Your task to perform on an android device: Open the calendar app, open the side menu, and click the "Day" option Image 0: 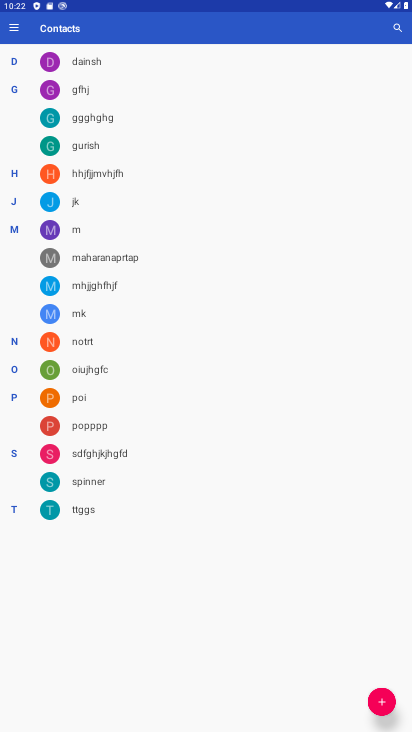
Step 0: press home button
Your task to perform on an android device: Open the calendar app, open the side menu, and click the "Day" option Image 1: 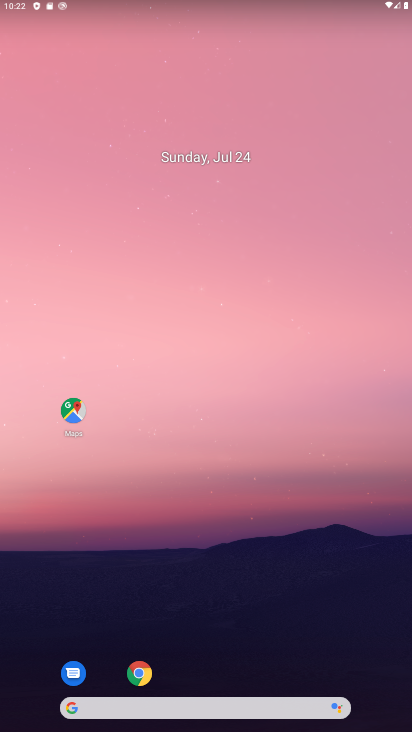
Step 1: drag from (274, 565) to (159, 256)
Your task to perform on an android device: Open the calendar app, open the side menu, and click the "Day" option Image 2: 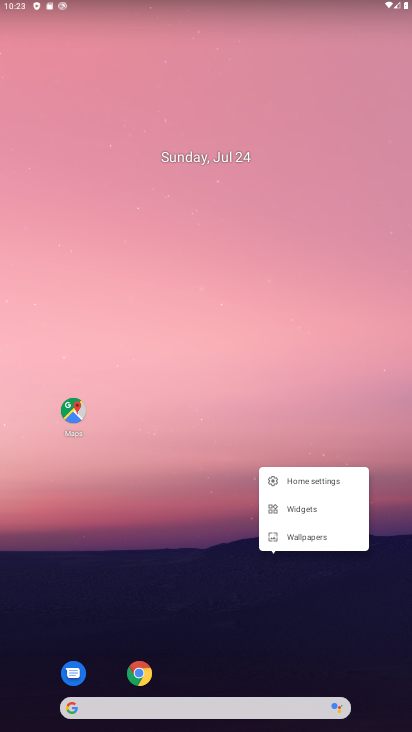
Step 2: click (188, 353)
Your task to perform on an android device: Open the calendar app, open the side menu, and click the "Day" option Image 3: 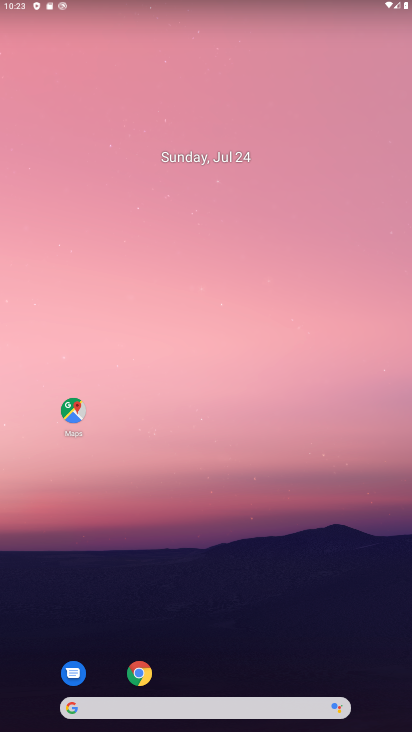
Step 3: drag from (224, 436) to (215, 71)
Your task to perform on an android device: Open the calendar app, open the side menu, and click the "Day" option Image 4: 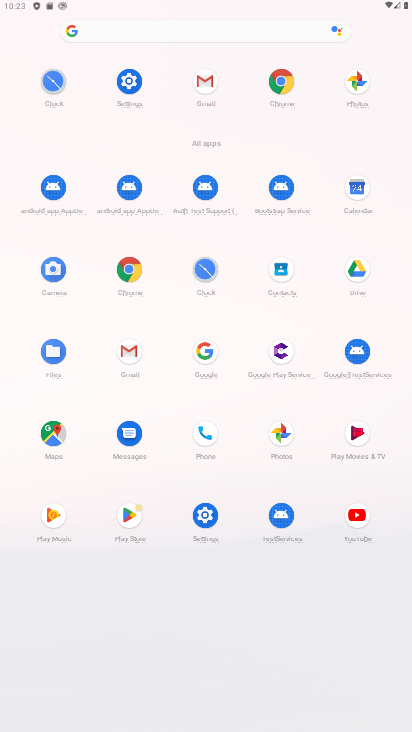
Step 4: drag from (239, 521) to (244, 478)
Your task to perform on an android device: Open the calendar app, open the side menu, and click the "Day" option Image 5: 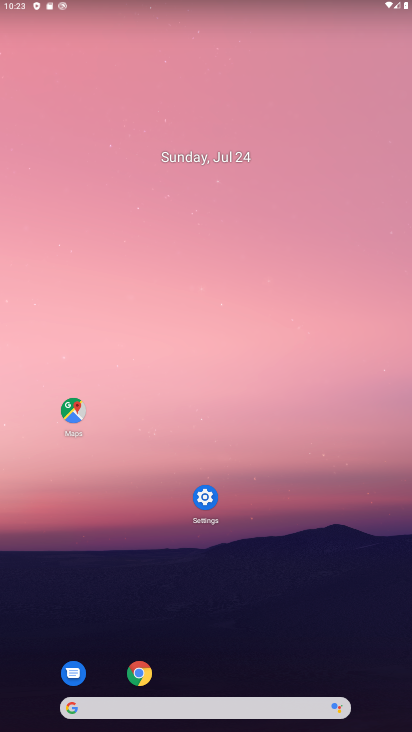
Step 5: drag from (292, 531) to (289, 98)
Your task to perform on an android device: Open the calendar app, open the side menu, and click the "Day" option Image 6: 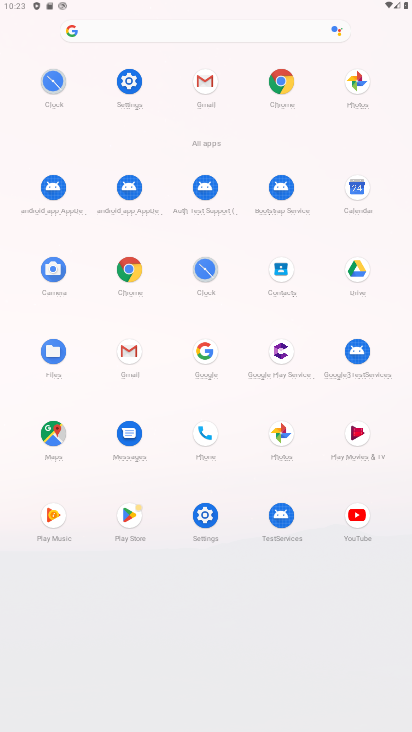
Step 6: click (359, 179)
Your task to perform on an android device: Open the calendar app, open the side menu, and click the "Day" option Image 7: 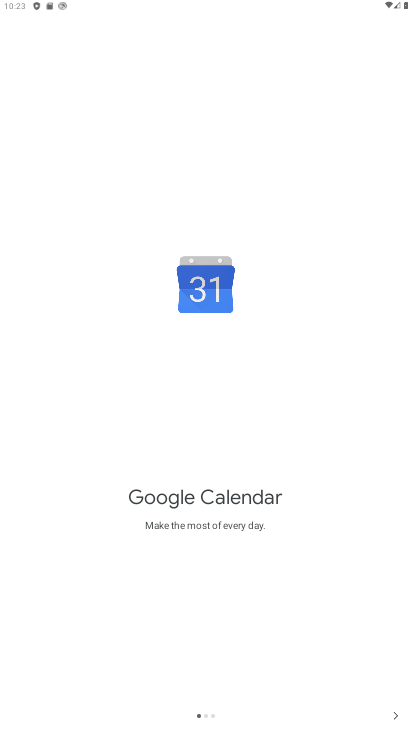
Step 7: click (394, 716)
Your task to perform on an android device: Open the calendar app, open the side menu, and click the "Day" option Image 8: 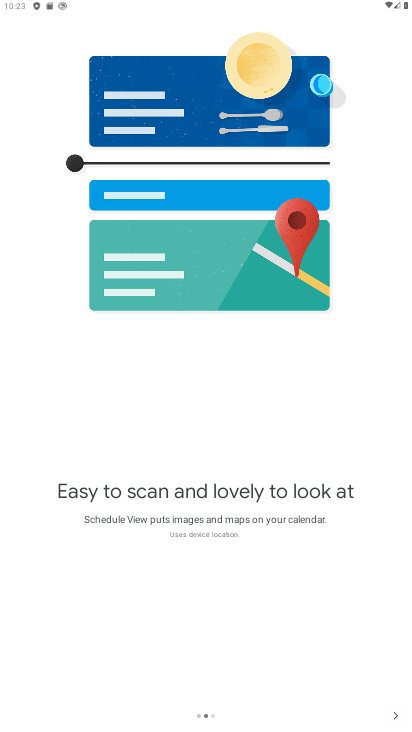
Step 8: click (394, 716)
Your task to perform on an android device: Open the calendar app, open the side menu, and click the "Day" option Image 9: 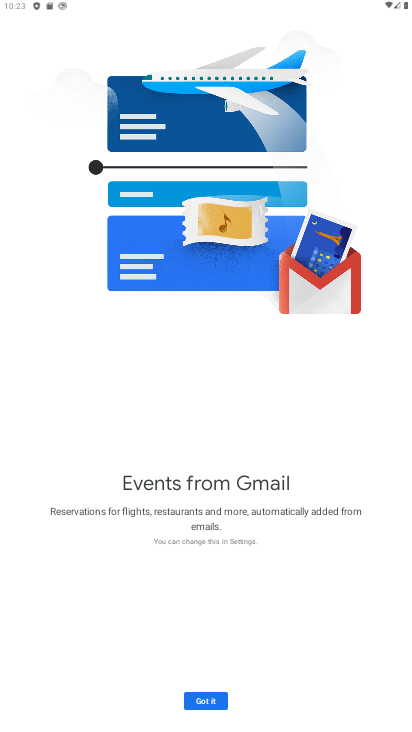
Step 9: click (394, 716)
Your task to perform on an android device: Open the calendar app, open the side menu, and click the "Day" option Image 10: 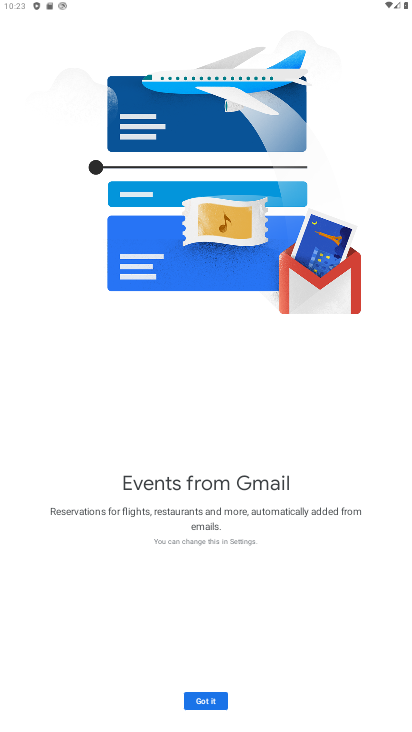
Step 10: click (394, 716)
Your task to perform on an android device: Open the calendar app, open the side menu, and click the "Day" option Image 11: 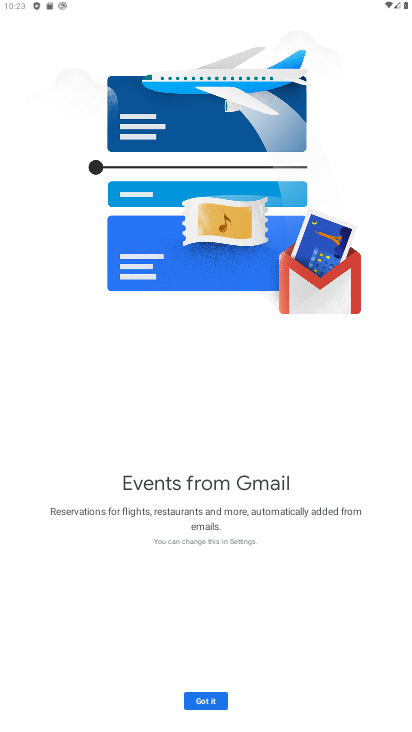
Step 11: click (211, 697)
Your task to perform on an android device: Open the calendar app, open the side menu, and click the "Day" option Image 12: 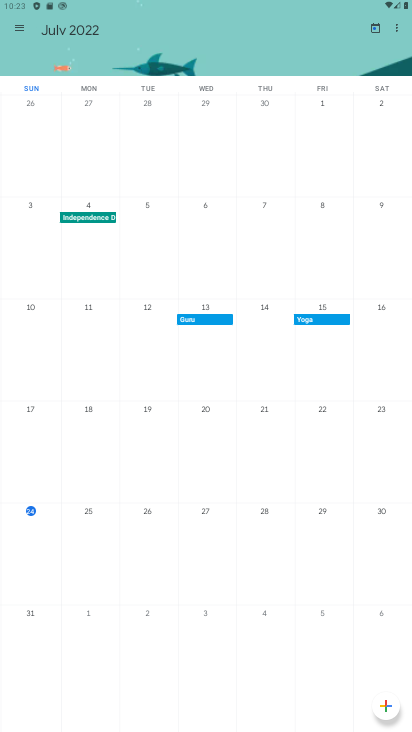
Step 12: click (16, 21)
Your task to perform on an android device: Open the calendar app, open the side menu, and click the "Day" option Image 13: 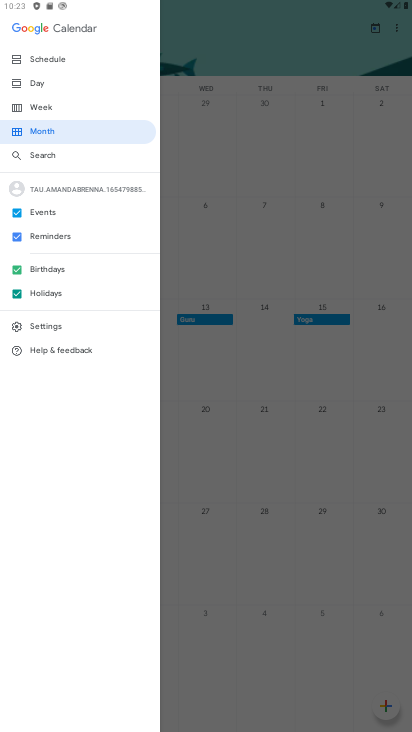
Step 13: click (30, 80)
Your task to perform on an android device: Open the calendar app, open the side menu, and click the "Day" option Image 14: 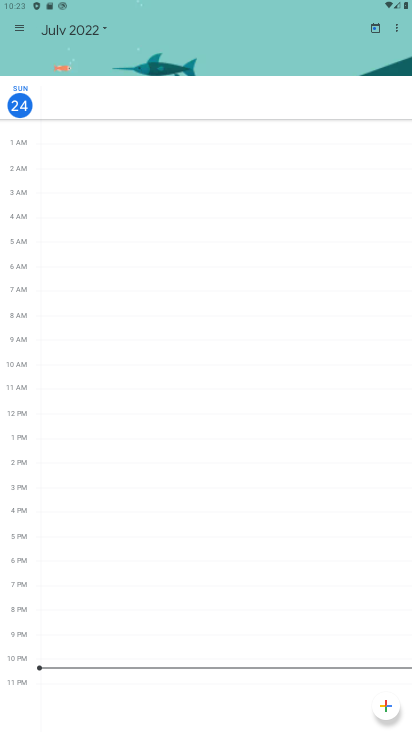
Step 14: task complete